Your task to perform on an android device: Go to ESPN.com Image 0: 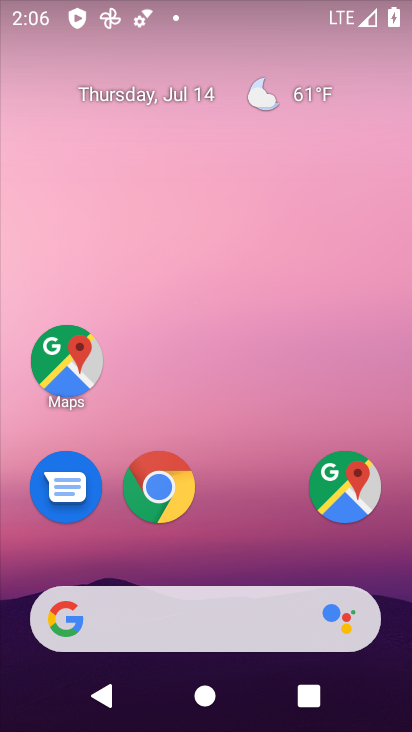
Step 0: drag from (249, 519) to (310, 84)
Your task to perform on an android device: Go to ESPN.com Image 1: 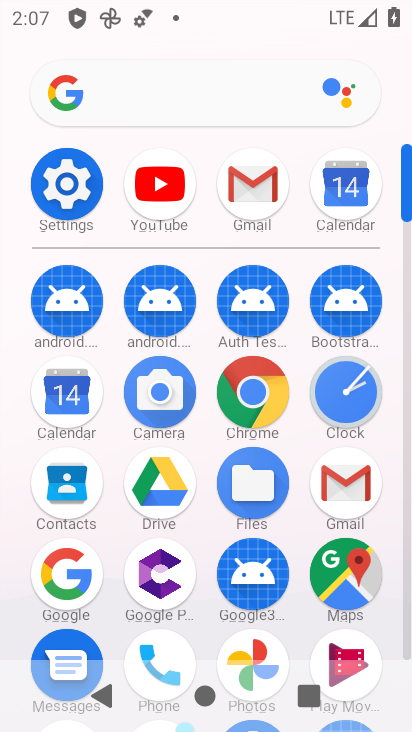
Step 1: click (267, 395)
Your task to perform on an android device: Go to ESPN.com Image 2: 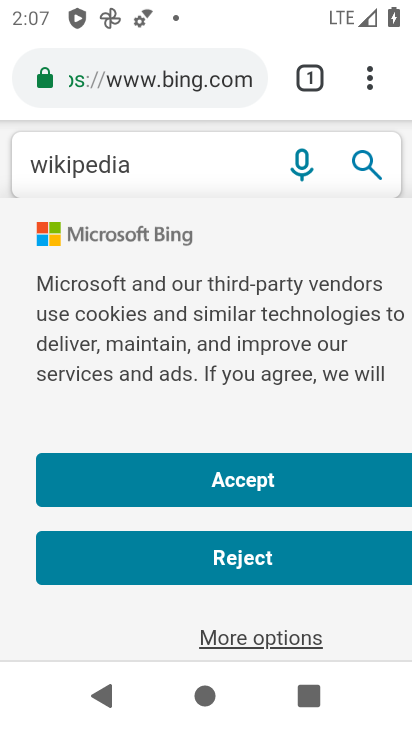
Step 2: click (203, 73)
Your task to perform on an android device: Go to ESPN.com Image 3: 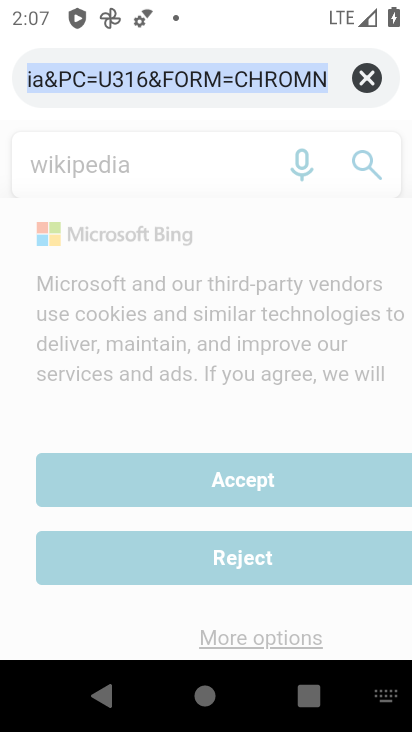
Step 3: type "espn.com"
Your task to perform on an android device: Go to ESPN.com Image 4: 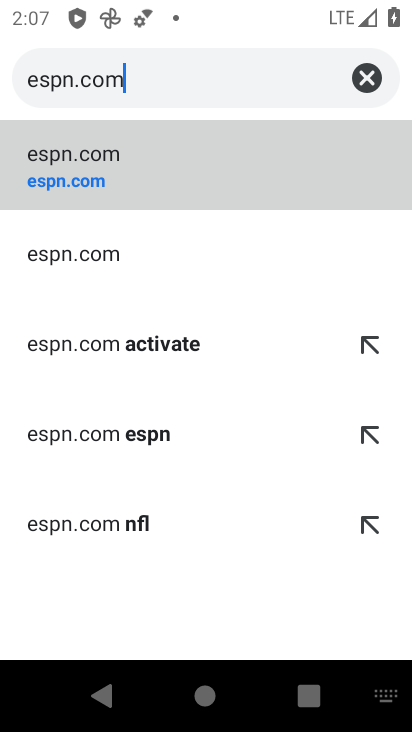
Step 4: click (263, 181)
Your task to perform on an android device: Go to ESPN.com Image 5: 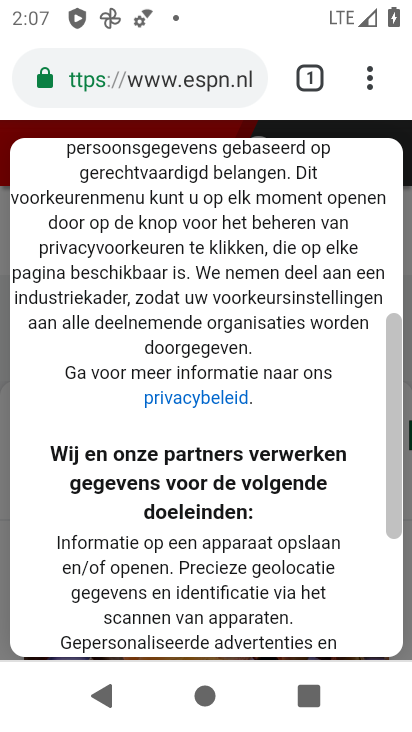
Step 5: task complete